Your task to perform on an android device: Go to internet settings Image 0: 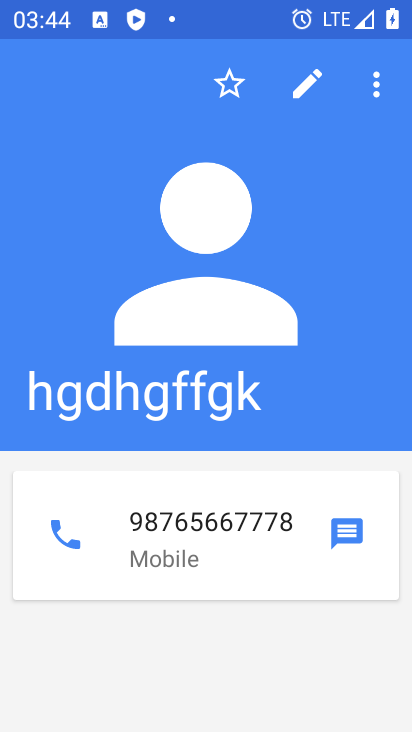
Step 0: press home button
Your task to perform on an android device: Go to internet settings Image 1: 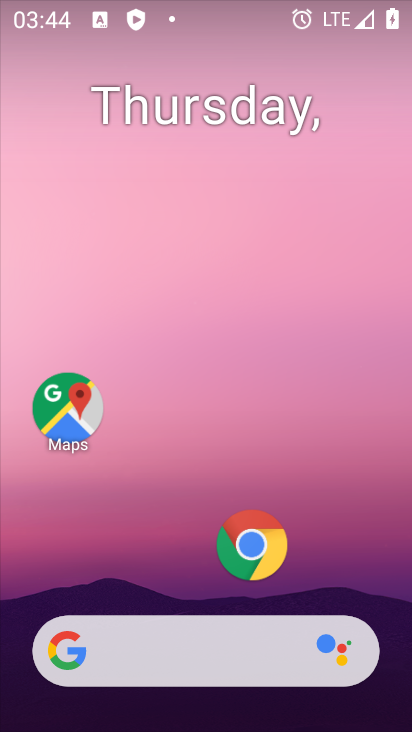
Step 1: drag from (270, 630) to (410, 227)
Your task to perform on an android device: Go to internet settings Image 2: 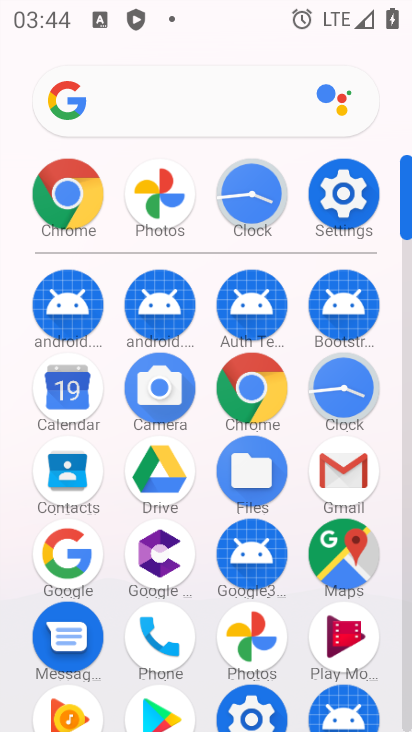
Step 2: click (345, 191)
Your task to perform on an android device: Go to internet settings Image 3: 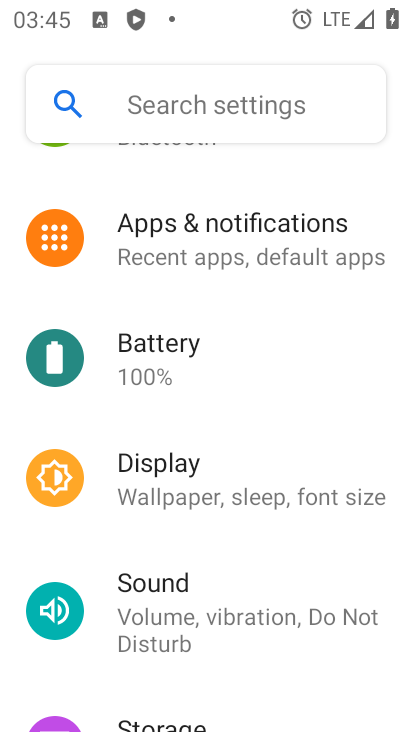
Step 3: drag from (233, 273) to (197, 645)
Your task to perform on an android device: Go to internet settings Image 4: 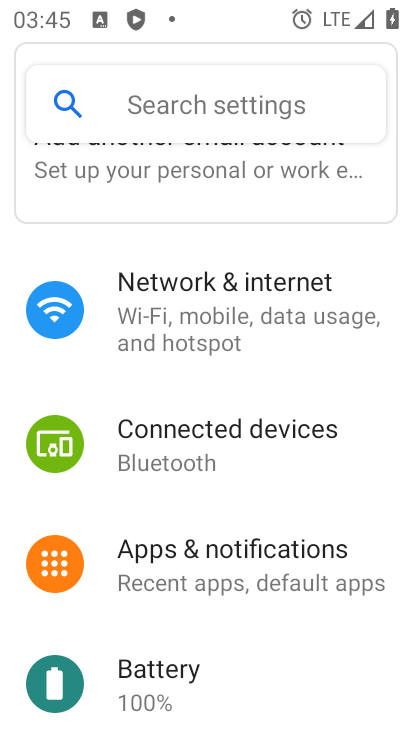
Step 4: click (212, 332)
Your task to perform on an android device: Go to internet settings Image 5: 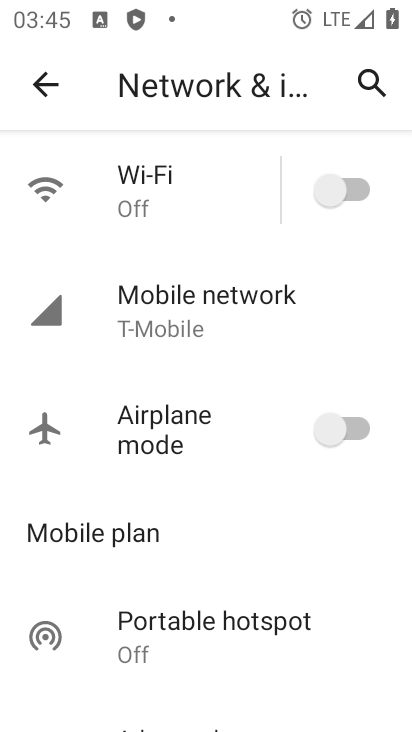
Step 5: task complete